Your task to perform on an android device: turn off priority inbox in the gmail app Image 0: 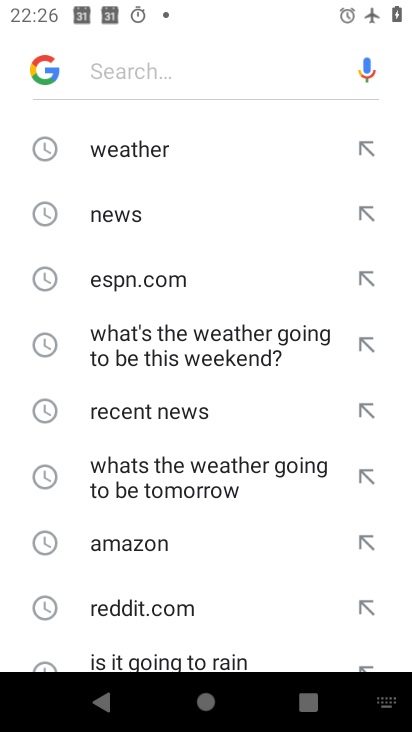
Step 0: press home button
Your task to perform on an android device: turn off priority inbox in the gmail app Image 1: 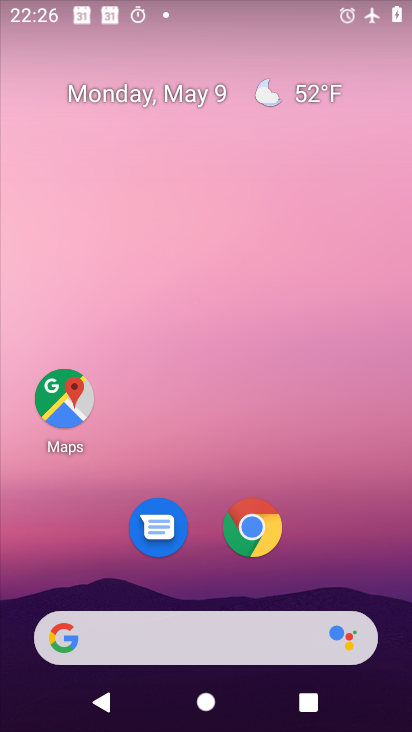
Step 1: drag from (203, 570) to (245, 121)
Your task to perform on an android device: turn off priority inbox in the gmail app Image 2: 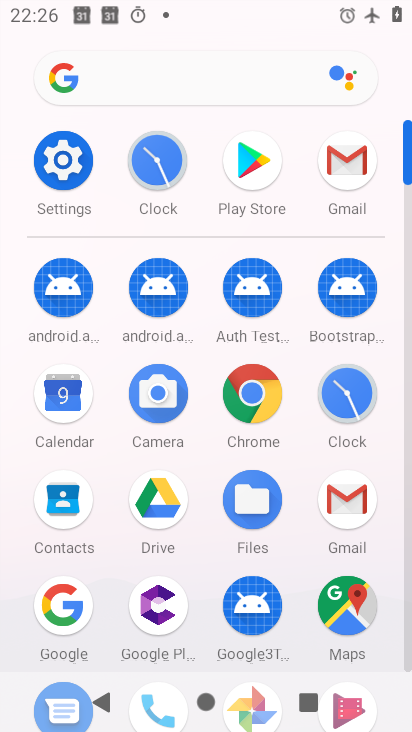
Step 2: click (345, 157)
Your task to perform on an android device: turn off priority inbox in the gmail app Image 3: 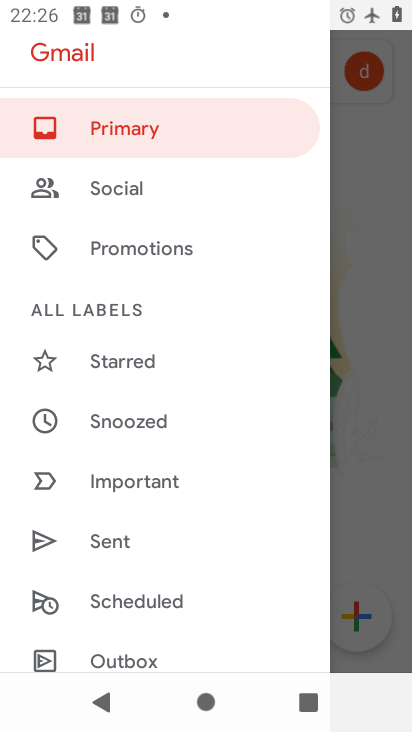
Step 3: drag from (163, 547) to (192, 127)
Your task to perform on an android device: turn off priority inbox in the gmail app Image 4: 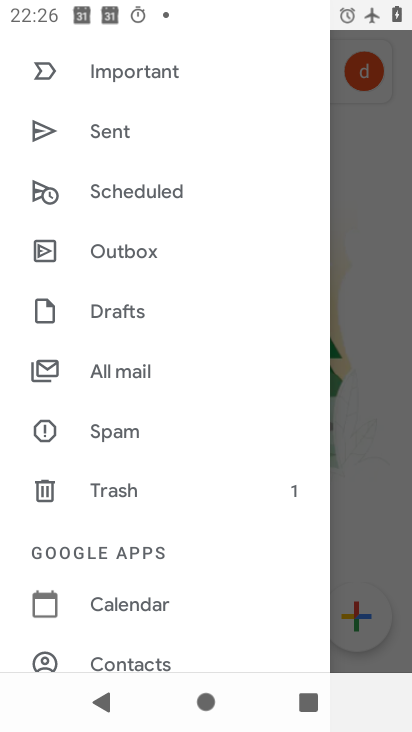
Step 4: drag from (158, 604) to (174, 250)
Your task to perform on an android device: turn off priority inbox in the gmail app Image 5: 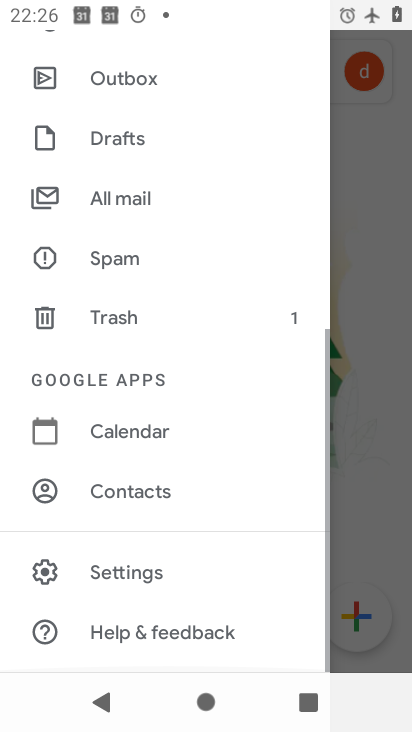
Step 5: click (132, 593)
Your task to perform on an android device: turn off priority inbox in the gmail app Image 6: 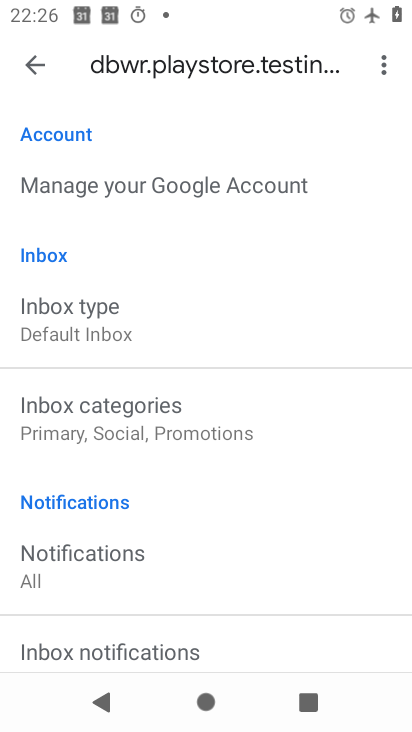
Step 6: click (123, 325)
Your task to perform on an android device: turn off priority inbox in the gmail app Image 7: 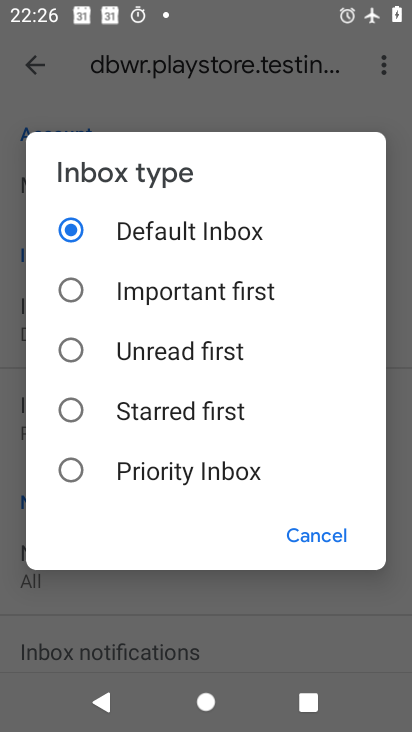
Step 7: click (317, 537)
Your task to perform on an android device: turn off priority inbox in the gmail app Image 8: 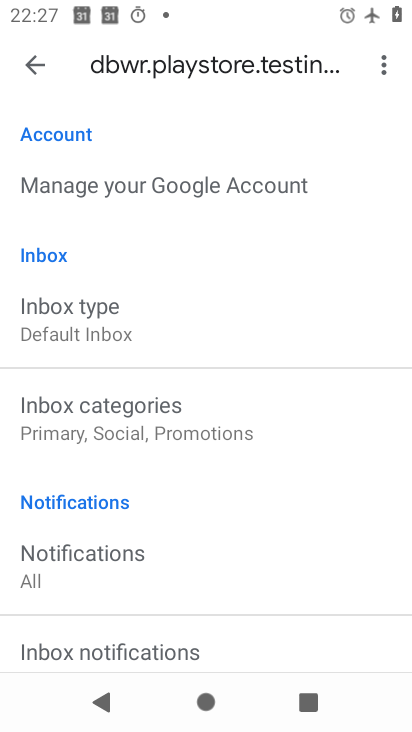
Step 8: task complete